Your task to perform on an android device: Open maps Image 0: 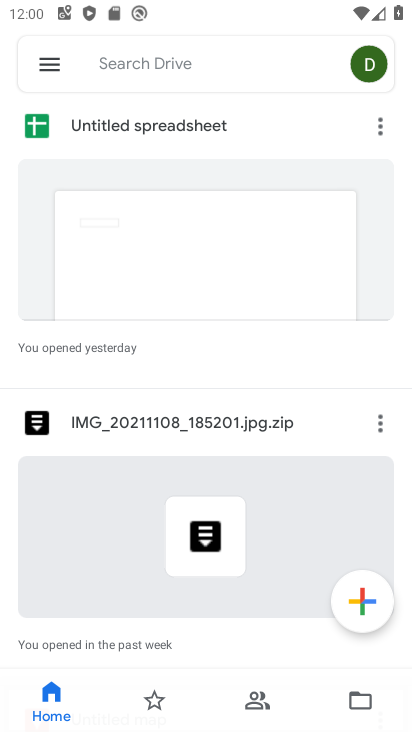
Step 0: press home button
Your task to perform on an android device: Open maps Image 1: 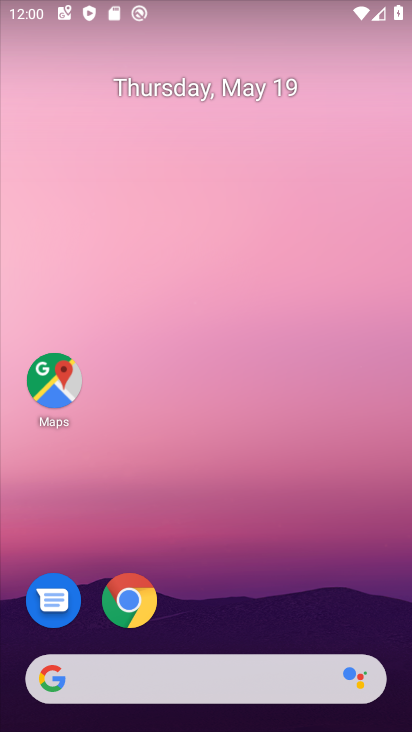
Step 1: click (61, 373)
Your task to perform on an android device: Open maps Image 2: 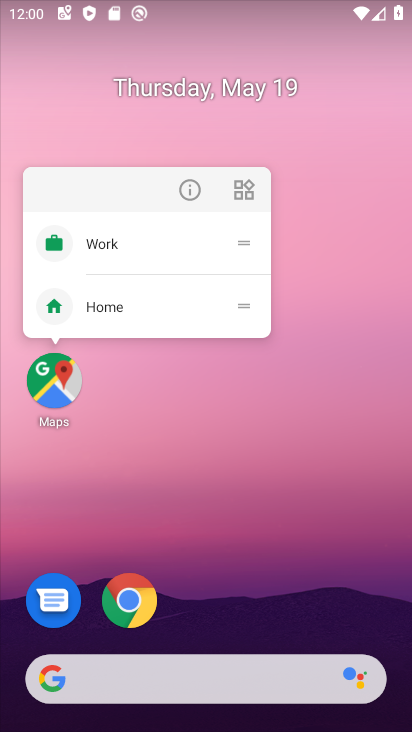
Step 2: click (47, 384)
Your task to perform on an android device: Open maps Image 3: 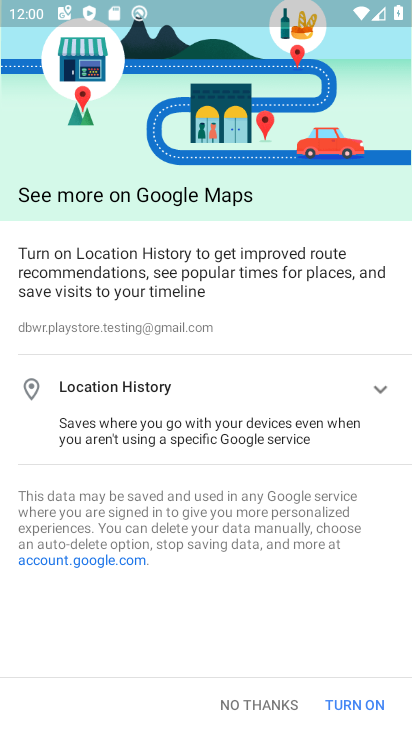
Step 3: task complete